Your task to perform on an android device: Turn off the flashlight Image 0: 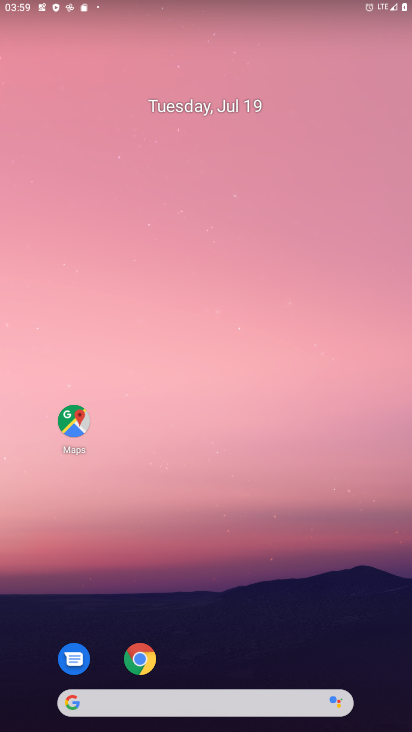
Step 0: press home button
Your task to perform on an android device: Turn off the flashlight Image 1: 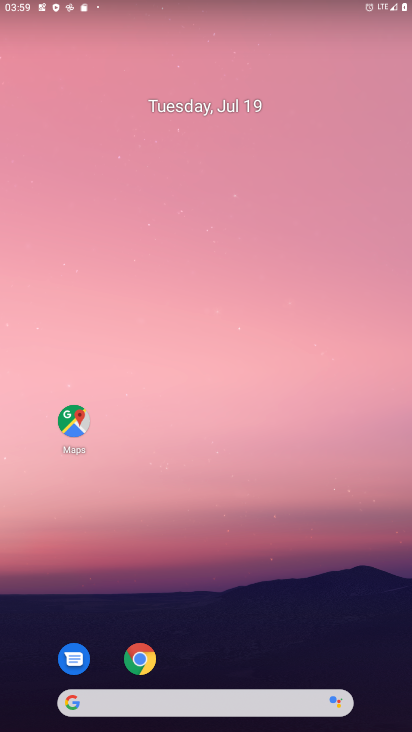
Step 1: task complete